Your task to perform on an android device: snooze an email in the gmail app Image 0: 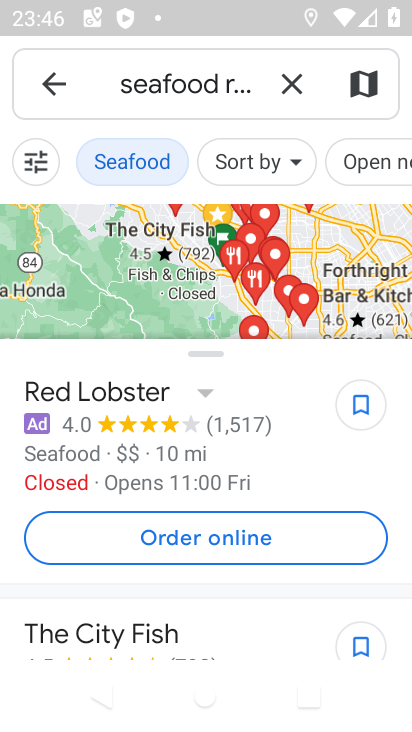
Step 0: press home button
Your task to perform on an android device: snooze an email in the gmail app Image 1: 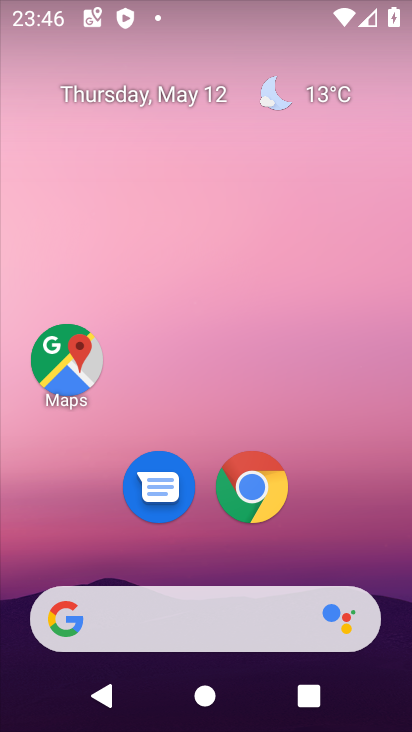
Step 1: drag from (212, 535) to (271, 18)
Your task to perform on an android device: snooze an email in the gmail app Image 2: 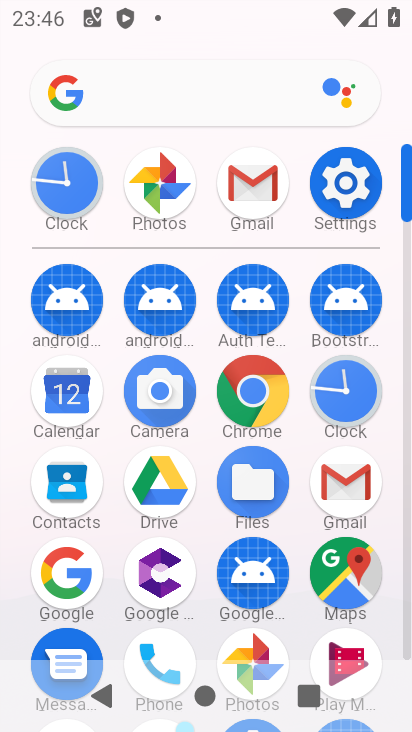
Step 2: click (258, 211)
Your task to perform on an android device: snooze an email in the gmail app Image 3: 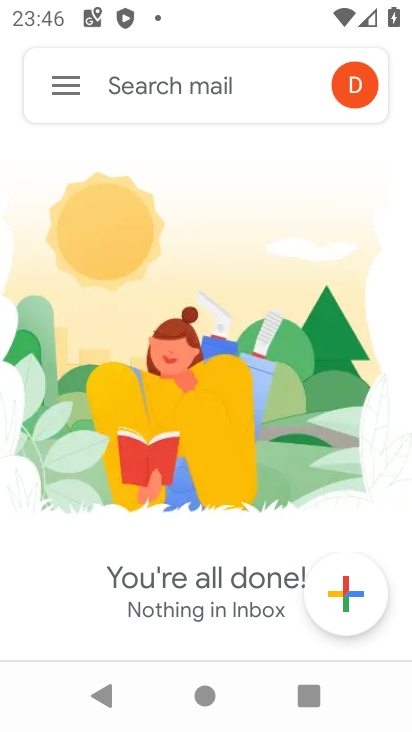
Step 3: task complete